Your task to perform on an android device: toggle javascript in the chrome app Image 0: 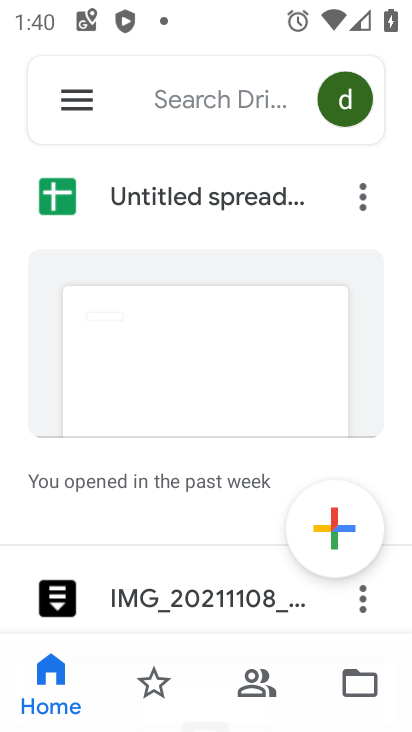
Step 0: press home button
Your task to perform on an android device: toggle javascript in the chrome app Image 1: 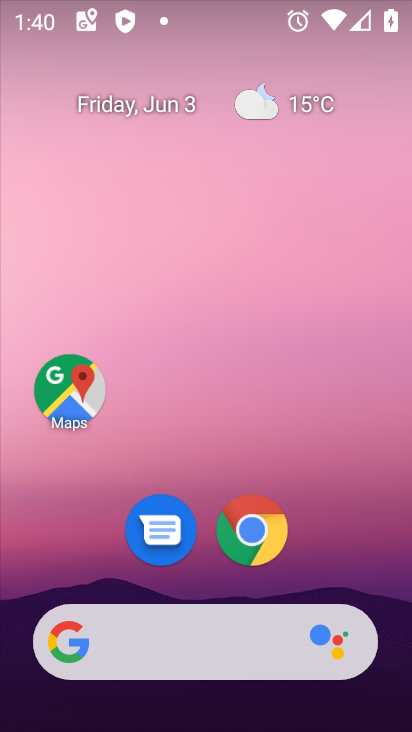
Step 1: click (287, 522)
Your task to perform on an android device: toggle javascript in the chrome app Image 2: 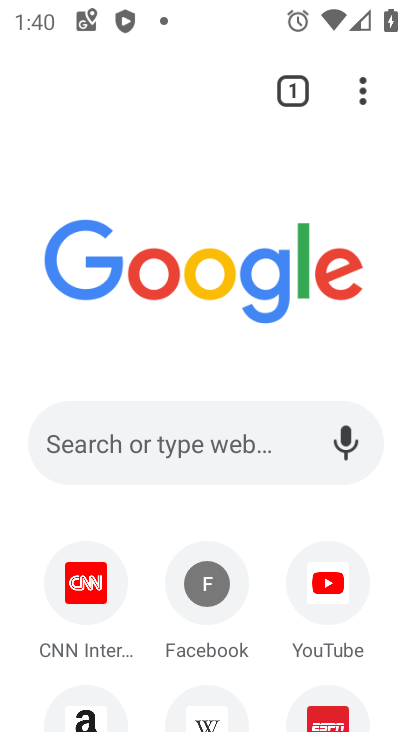
Step 2: drag from (360, 93) to (134, 548)
Your task to perform on an android device: toggle javascript in the chrome app Image 3: 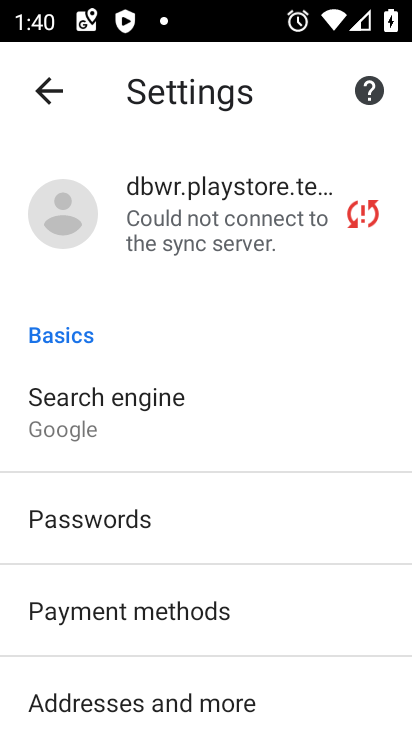
Step 3: drag from (328, 400) to (270, 56)
Your task to perform on an android device: toggle javascript in the chrome app Image 4: 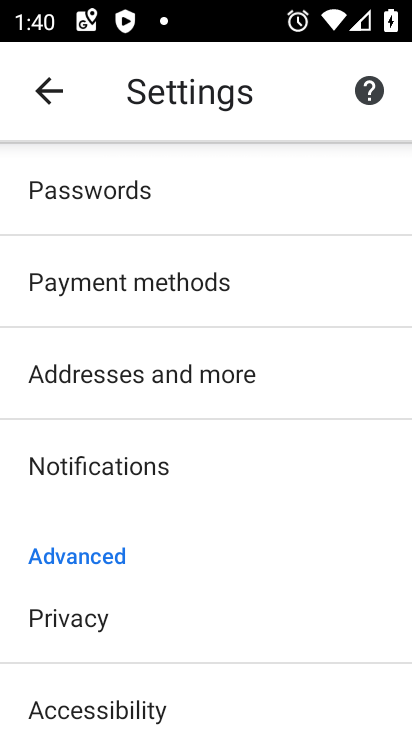
Step 4: drag from (242, 572) to (224, 229)
Your task to perform on an android device: toggle javascript in the chrome app Image 5: 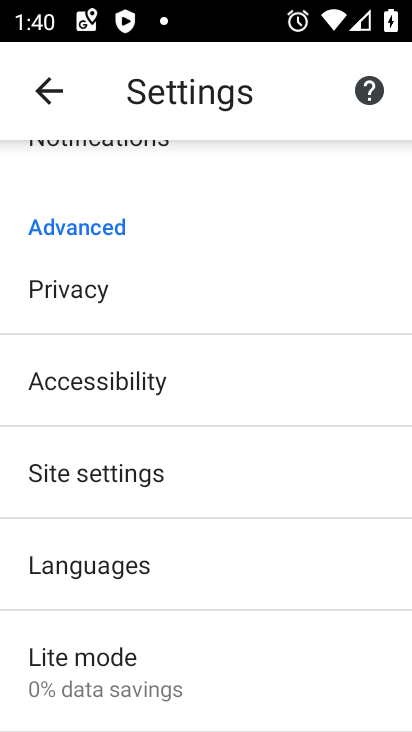
Step 5: click (181, 485)
Your task to perform on an android device: toggle javascript in the chrome app Image 6: 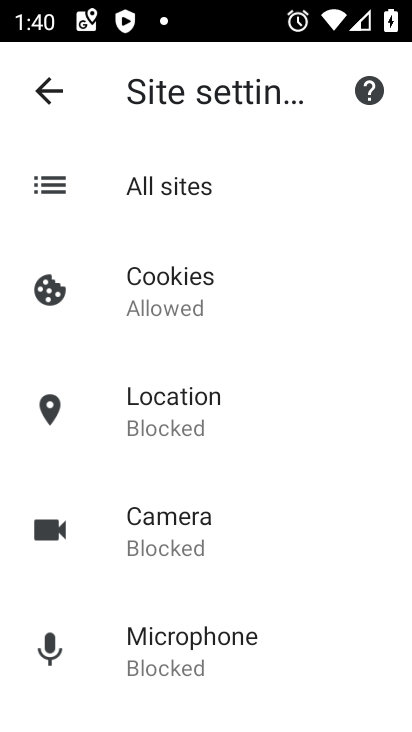
Step 6: drag from (345, 653) to (322, 362)
Your task to perform on an android device: toggle javascript in the chrome app Image 7: 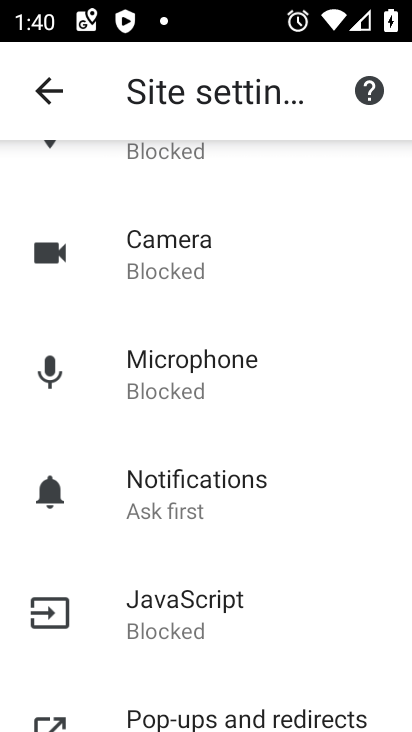
Step 7: click (202, 589)
Your task to perform on an android device: toggle javascript in the chrome app Image 8: 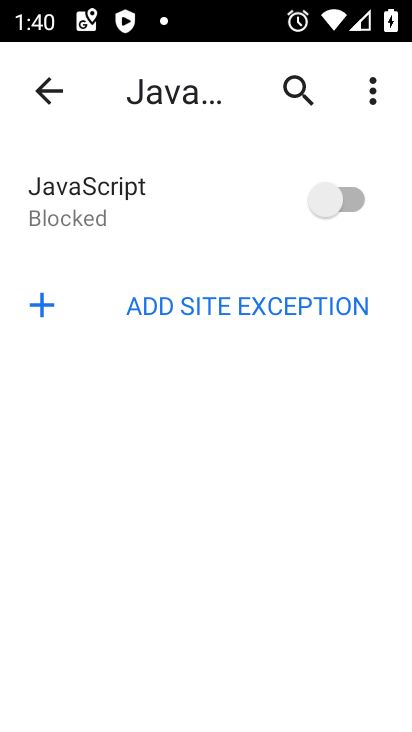
Step 8: click (337, 201)
Your task to perform on an android device: toggle javascript in the chrome app Image 9: 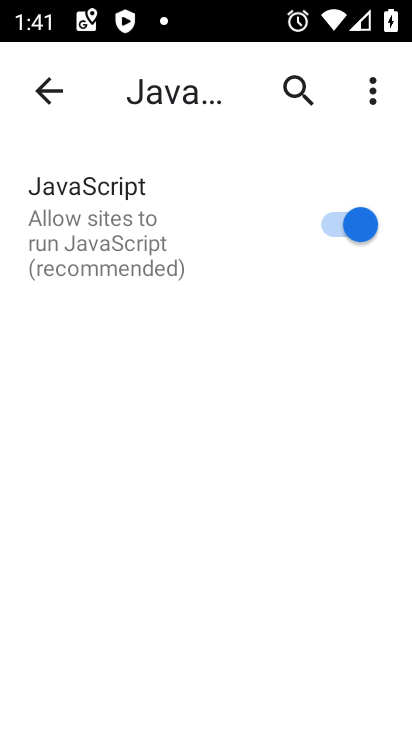
Step 9: task complete